Your task to perform on an android device: turn off javascript in the chrome app Image 0: 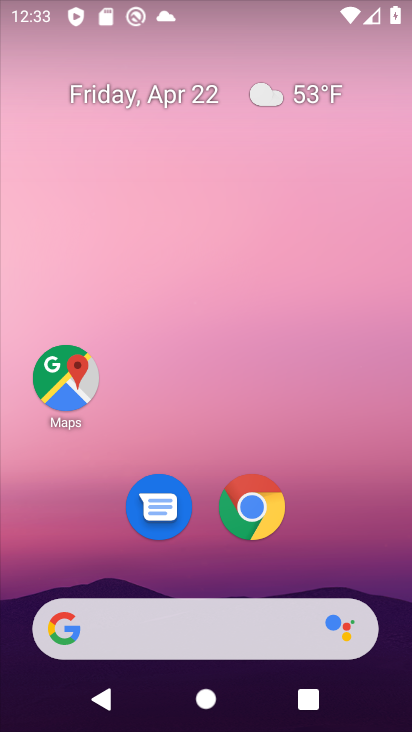
Step 0: click (255, 504)
Your task to perform on an android device: turn off javascript in the chrome app Image 1: 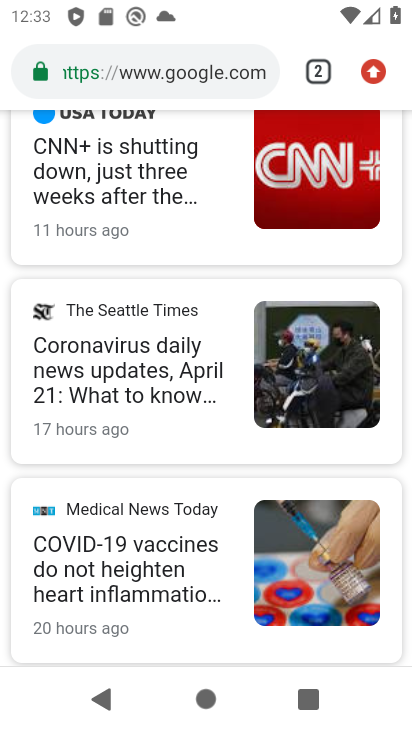
Step 1: drag from (376, 70) to (151, 509)
Your task to perform on an android device: turn off javascript in the chrome app Image 2: 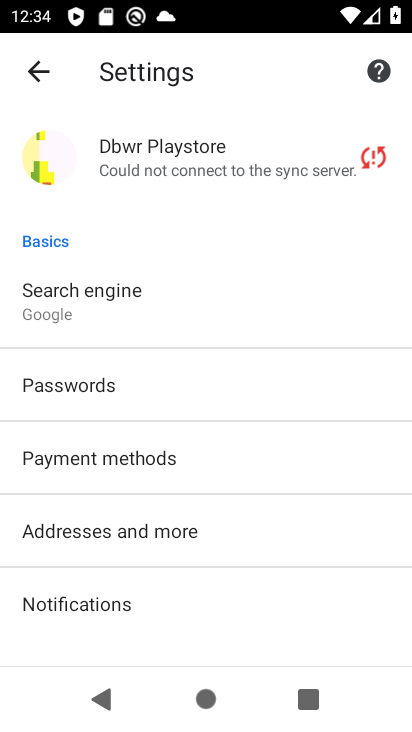
Step 2: drag from (199, 576) to (209, 210)
Your task to perform on an android device: turn off javascript in the chrome app Image 3: 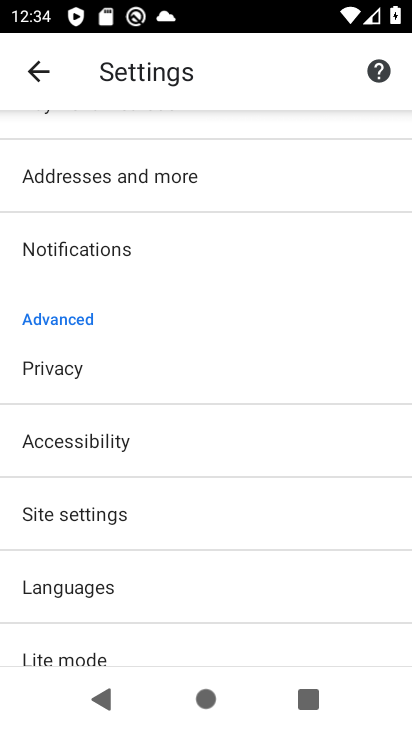
Step 3: click (60, 514)
Your task to perform on an android device: turn off javascript in the chrome app Image 4: 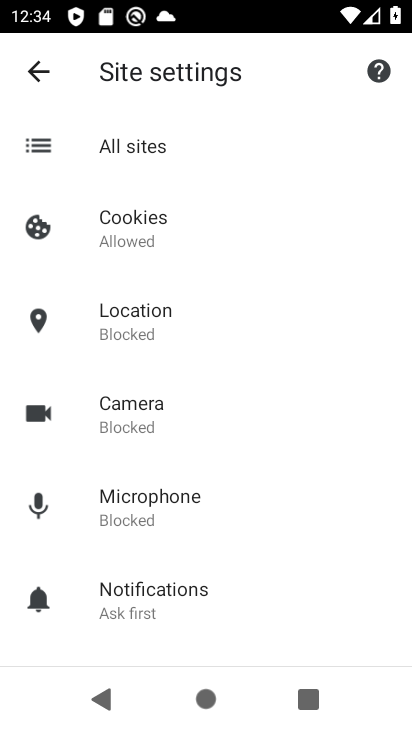
Step 4: drag from (273, 560) to (248, 295)
Your task to perform on an android device: turn off javascript in the chrome app Image 5: 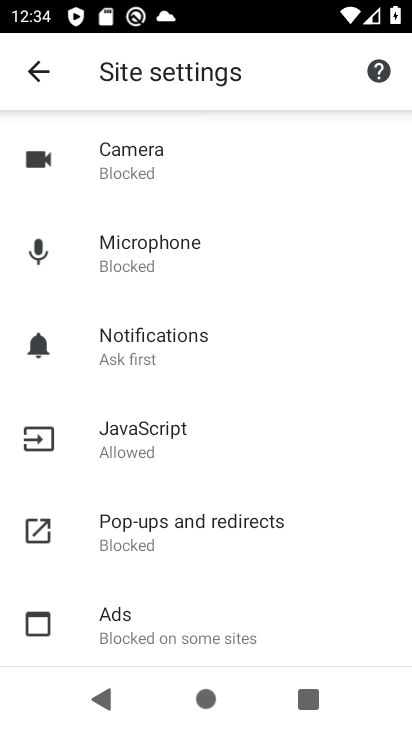
Step 5: click (135, 451)
Your task to perform on an android device: turn off javascript in the chrome app Image 6: 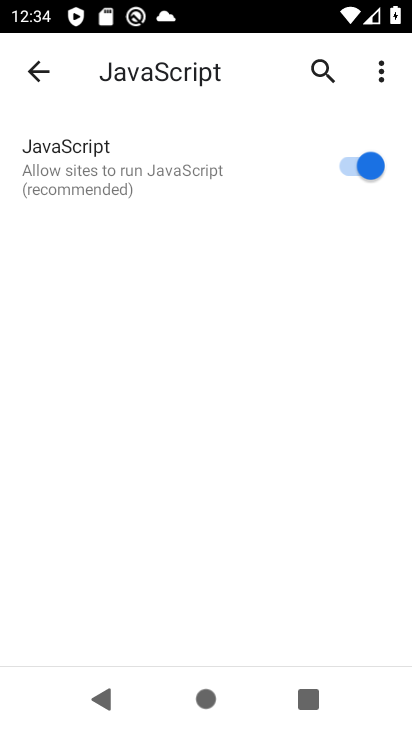
Step 6: click (376, 167)
Your task to perform on an android device: turn off javascript in the chrome app Image 7: 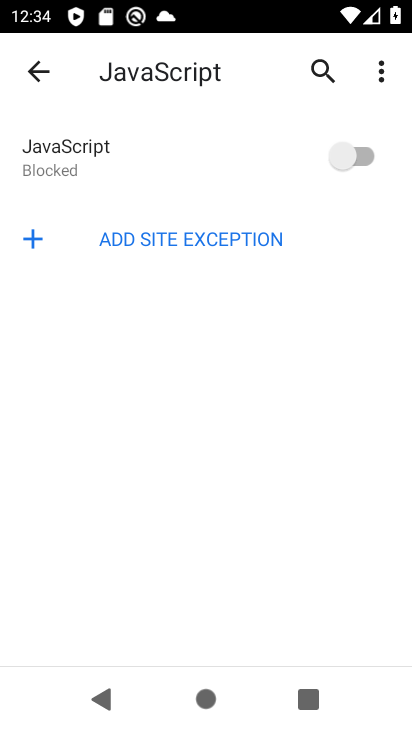
Step 7: task complete